Your task to perform on an android device: Do I have any events today? Image 0: 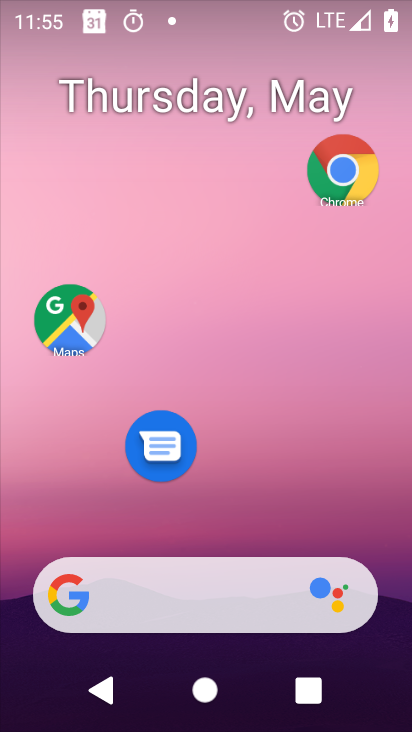
Step 0: drag from (295, 610) to (315, 41)
Your task to perform on an android device: Do I have any events today? Image 1: 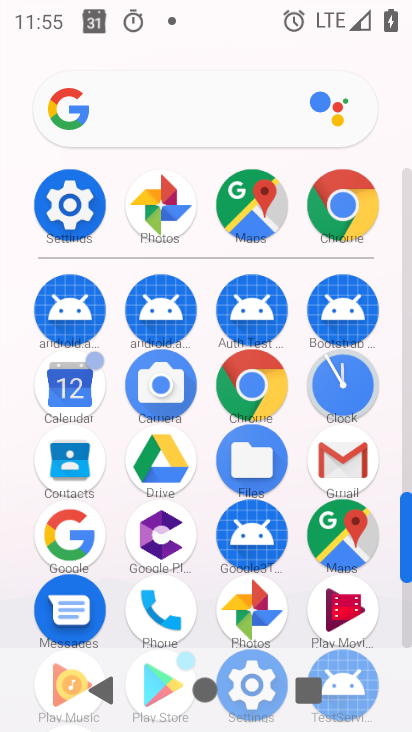
Step 1: click (268, 402)
Your task to perform on an android device: Do I have any events today? Image 2: 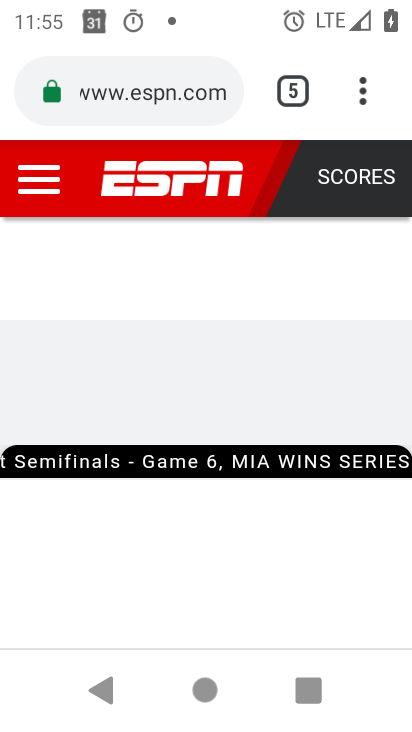
Step 2: click (121, 91)
Your task to perform on an android device: Do I have any events today? Image 3: 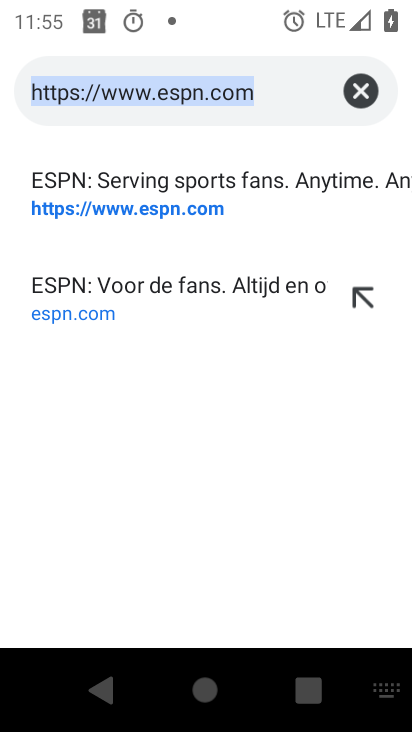
Step 3: click (353, 89)
Your task to perform on an android device: Do I have any events today? Image 4: 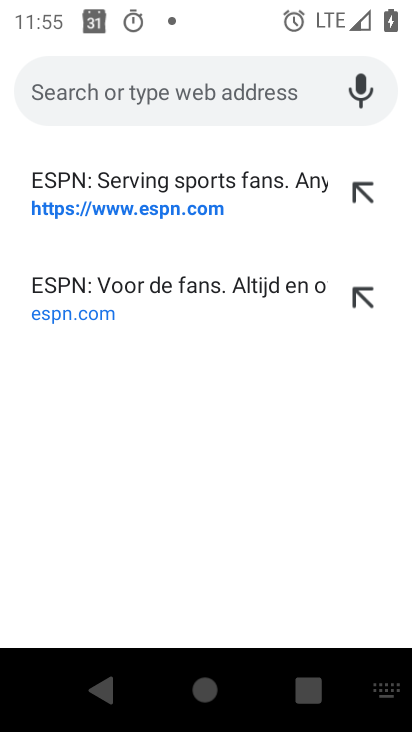
Step 4: type "do i have any events today"
Your task to perform on an android device: Do I have any events today? Image 5: 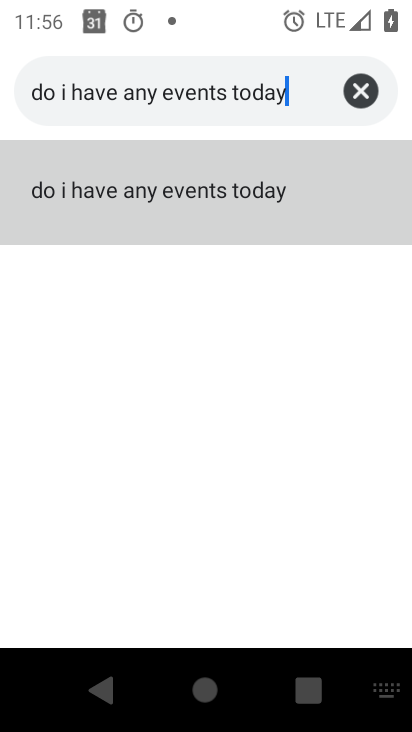
Step 5: click (311, 194)
Your task to perform on an android device: Do I have any events today? Image 6: 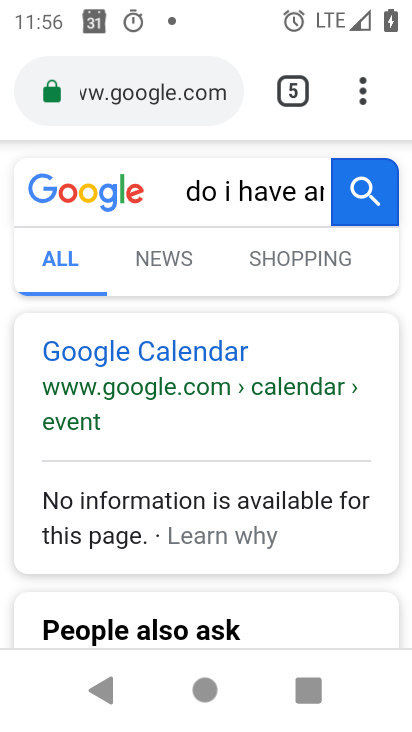
Step 6: task complete